Your task to perform on an android device: Open Maps and search for coffee Image 0: 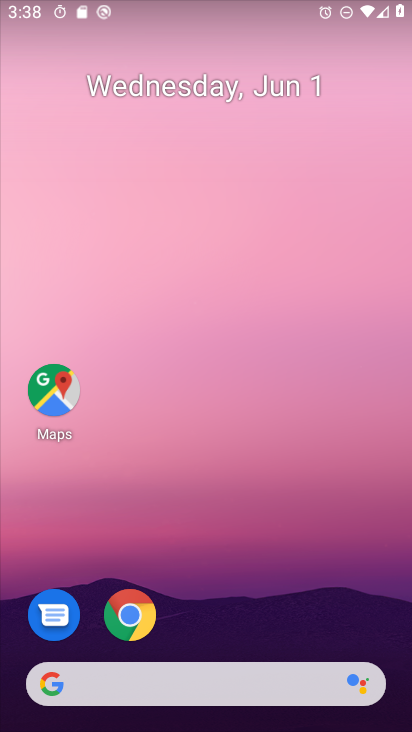
Step 0: press home button
Your task to perform on an android device: Open Maps and search for coffee Image 1: 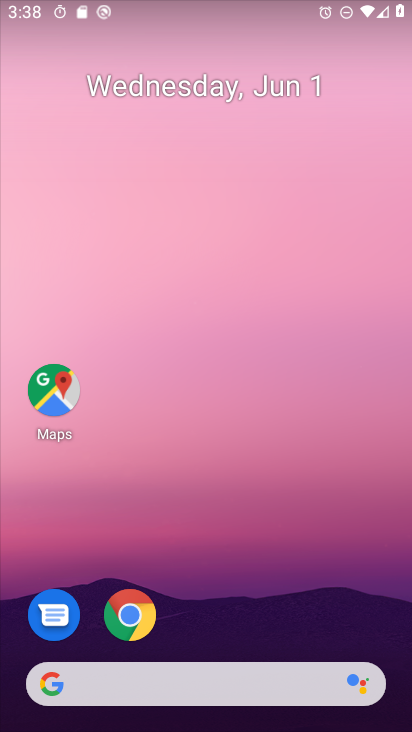
Step 1: drag from (268, 640) to (258, 193)
Your task to perform on an android device: Open Maps and search for coffee Image 2: 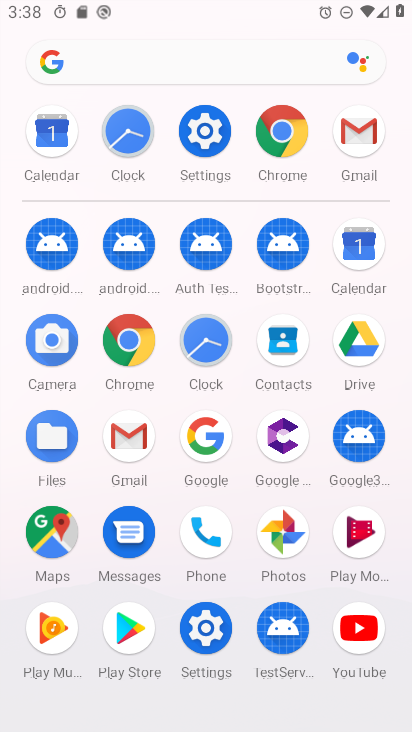
Step 2: click (44, 531)
Your task to perform on an android device: Open Maps and search for coffee Image 3: 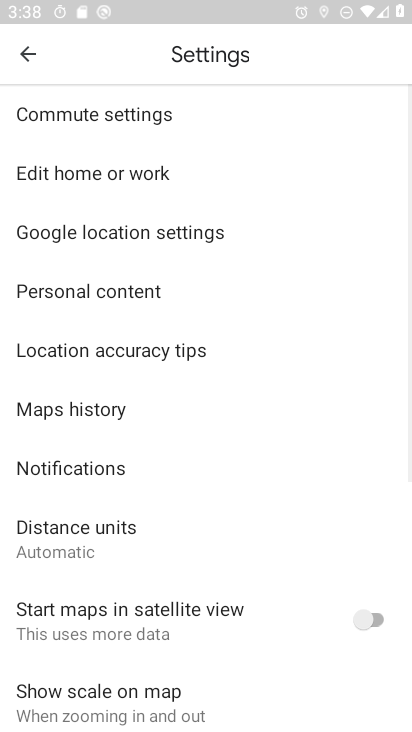
Step 3: press back button
Your task to perform on an android device: Open Maps and search for coffee Image 4: 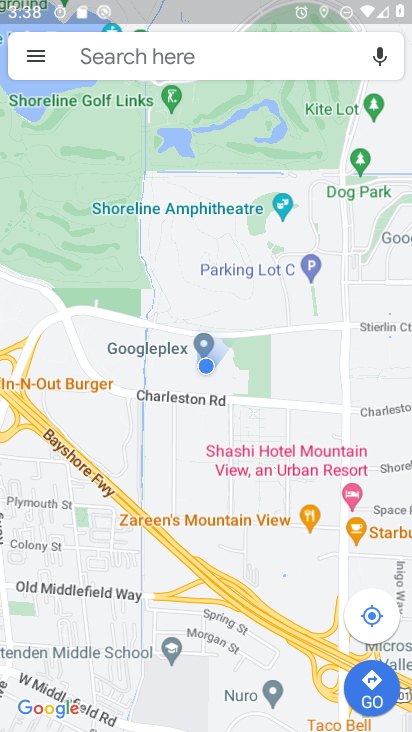
Step 4: click (270, 50)
Your task to perform on an android device: Open Maps and search for coffee Image 5: 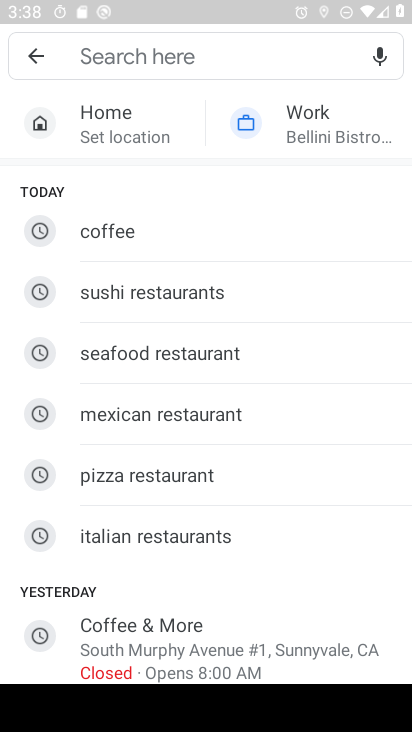
Step 5: type "coffee"
Your task to perform on an android device: Open Maps and search for coffee Image 6: 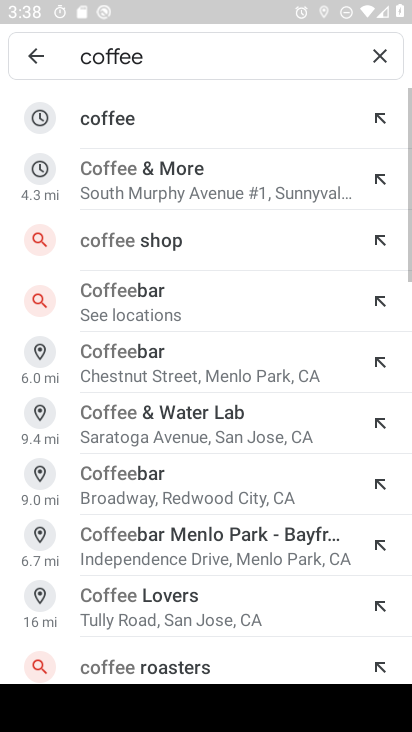
Step 6: click (145, 117)
Your task to perform on an android device: Open Maps and search for coffee Image 7: 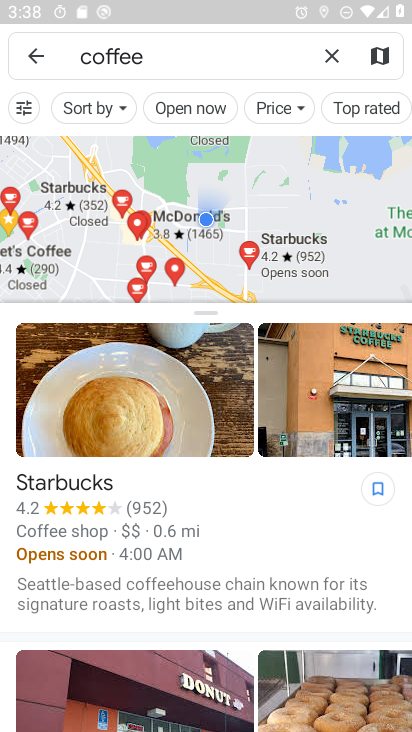
Step 7: task complete